Your task to perform on an android device: Open the calendar app, open the side menu, and click the "Day" option Image 0: 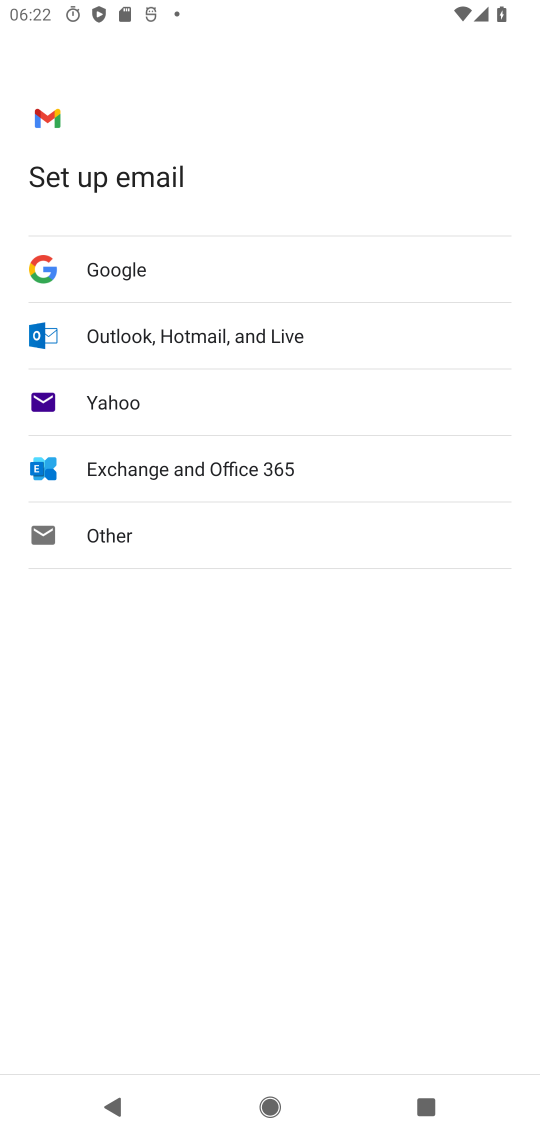
Step 0: press home button
Your task to perform on an android device: Open the calendar app, open the side menu, and click the "Day" option Image 1: 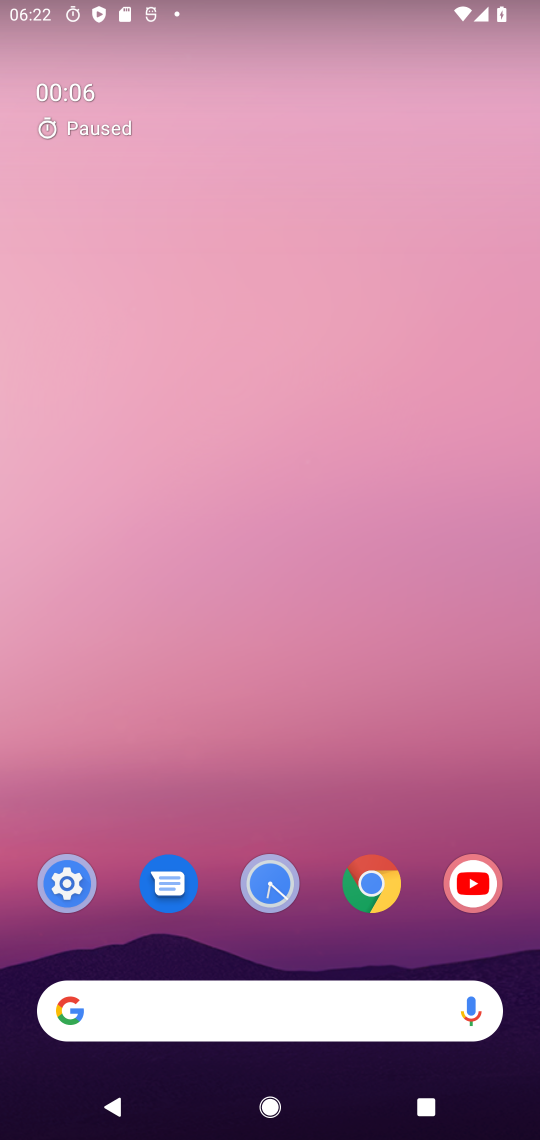
Step 1: drag from (110, 986) to (108, 293)
Your task to perform on an android device: Open the calendar app, open the side menu, and click the "Day" option Image 2: 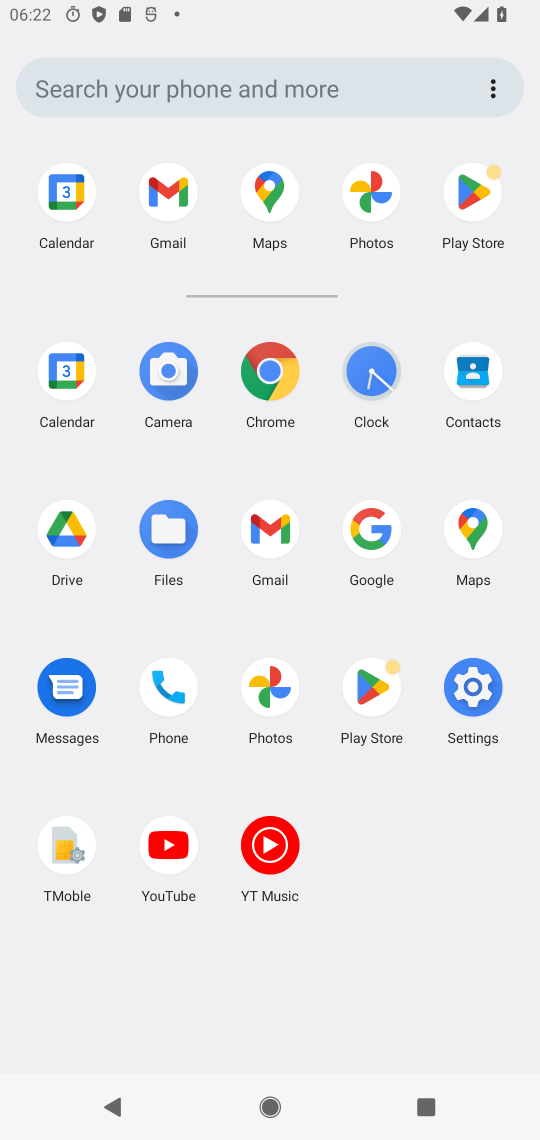
Step 2: click (70, 199)
Your task to perform on an android device: Open the calendar app, open the side menu, and click the "Day" option Image 3: 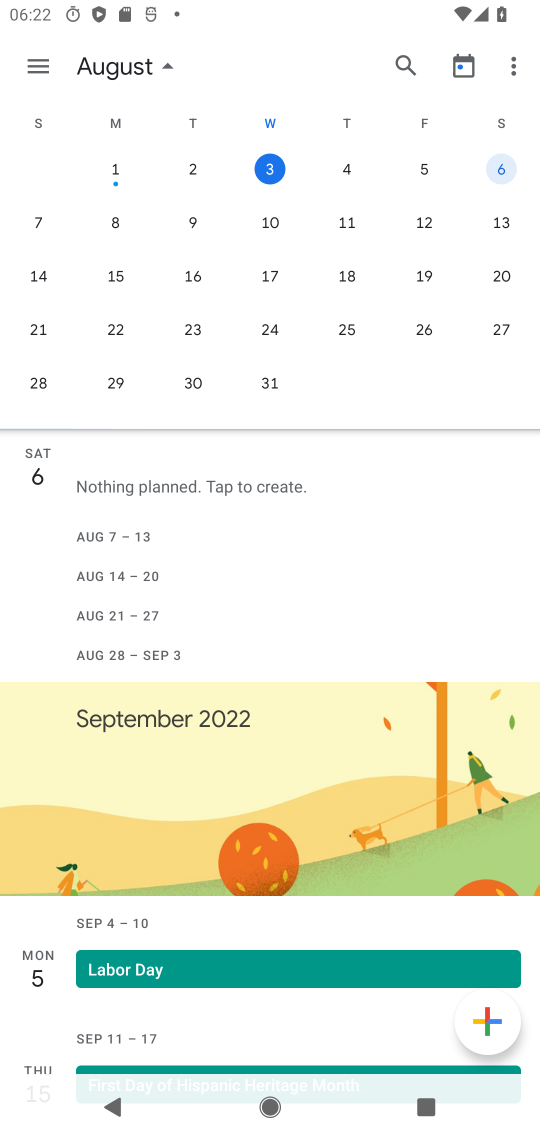
Step 3: click (36, 56)
Your task to perform on an android device: Open the calendar app, open the side menu, and click the "Day" option Image 4: 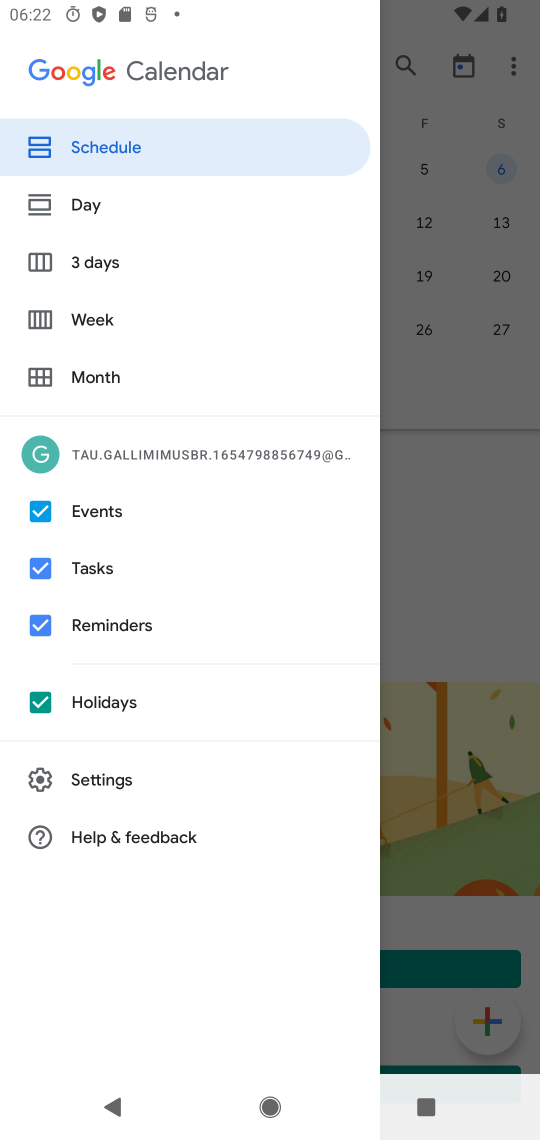
Step 4: click (106, 200)
Your task to perform on an android device: Open the calendar app, open the side menu, and click the "Day" option Image 5: 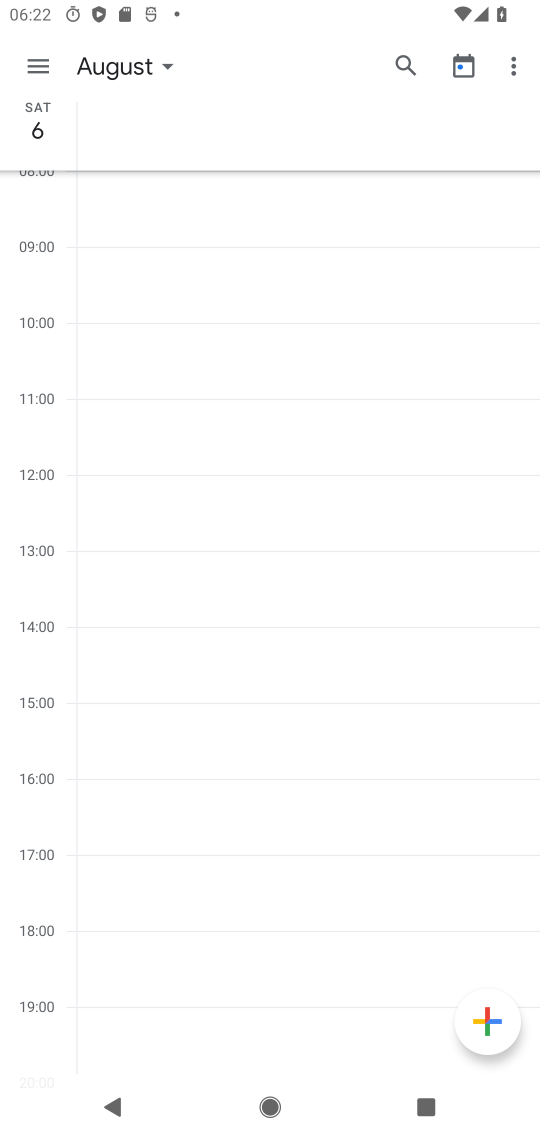
Step 5: task complete